Your task to perform on an android device: Open Google Maps and go to "Timeline" Image 0: 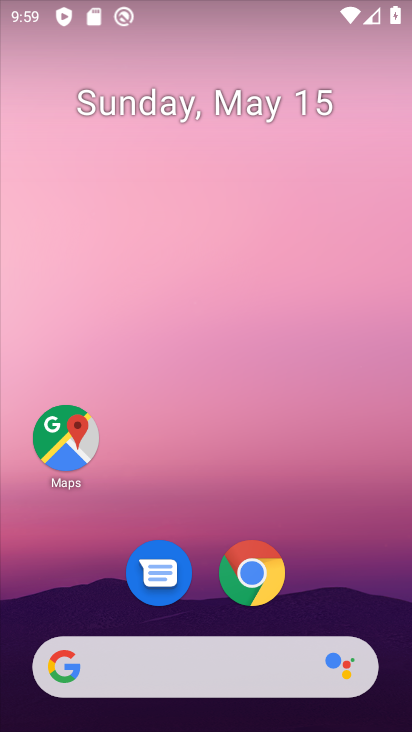
Step 0: click (64, 436)
Your task to perform on an android device: Open Google Maps and go to "Timeline" Image 1: 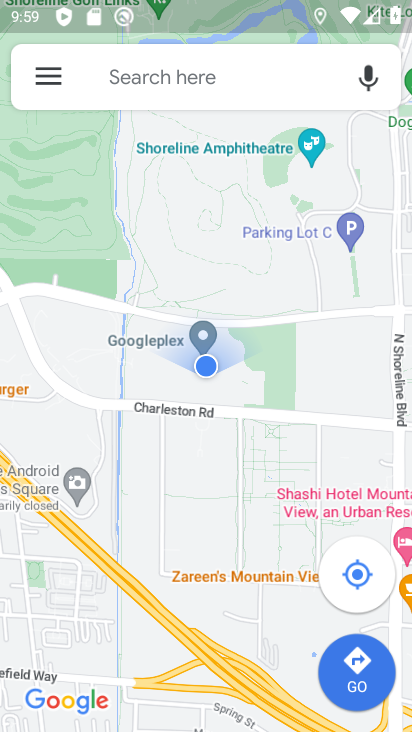
Step 1: click (50, 74)
Your task to perform on an android device: Open Google Maps and go to "Timeline" Image 2: 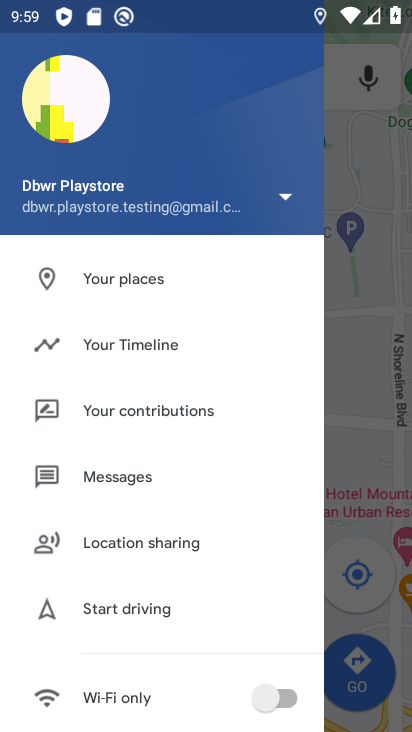
Step 2: click (157, 334)
Your task to perform on an android device: Open Google Maps and go to "Timeline" Image 3: 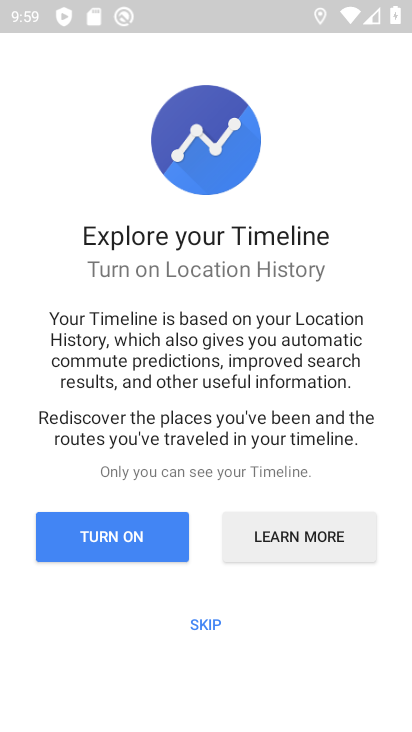
Step 3: task complete